Your task to perform on an android device: Turn on the flashlight Image 0: 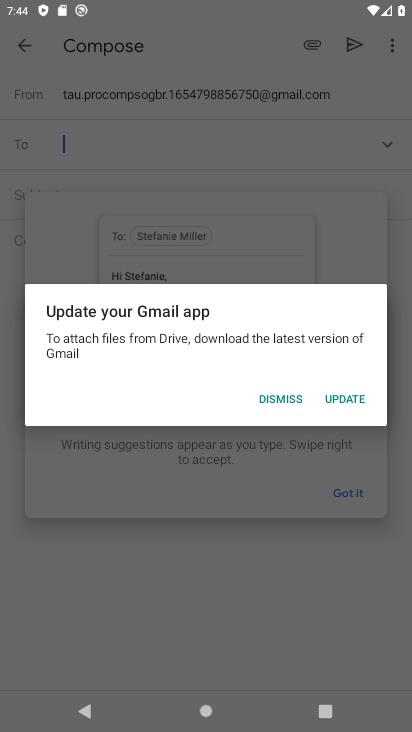
Step 0: click (285, 393)
Your task to perform on an android device: Turn on the flashlight Image 1: 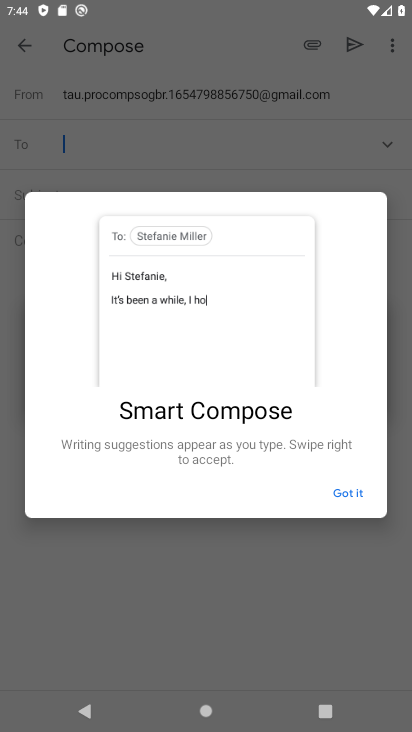
Step 1: click (340, 498)
Your task to perform on an android device: Turn on the flashlight Image 2: 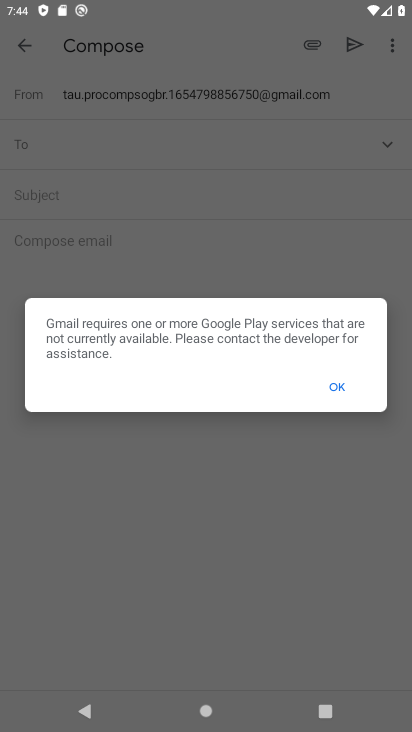
Step 2: type ""
Your task to perform on an android device: Turn on the flashlight Image 3: 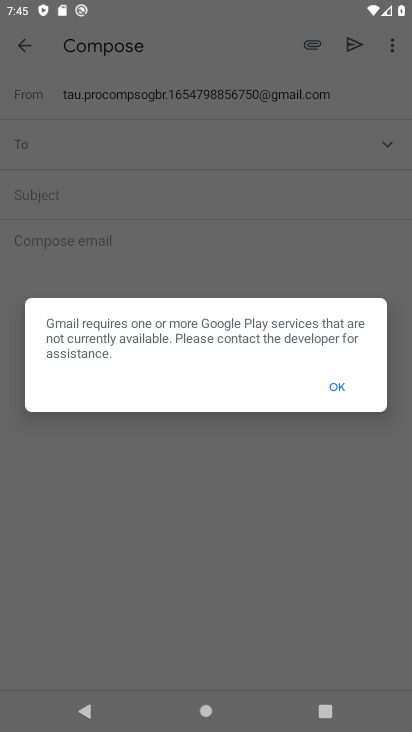
Step 3: click (338, 380)
Your task to perform on an android device: Turn on the flashlight Image 4: 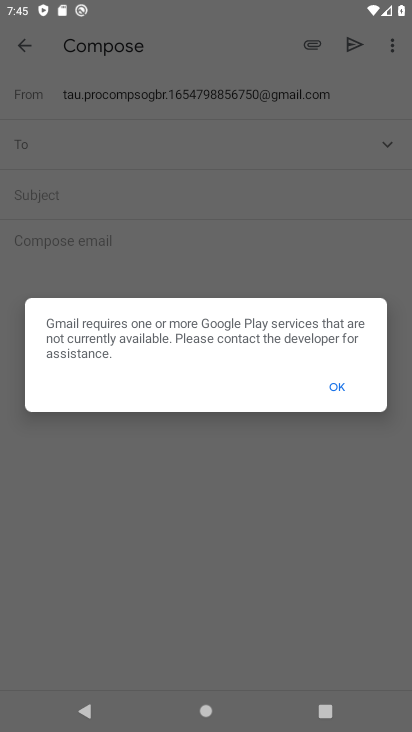
Step 4: task complete